Your task to perform on an android device: Open sound settings Image 0: 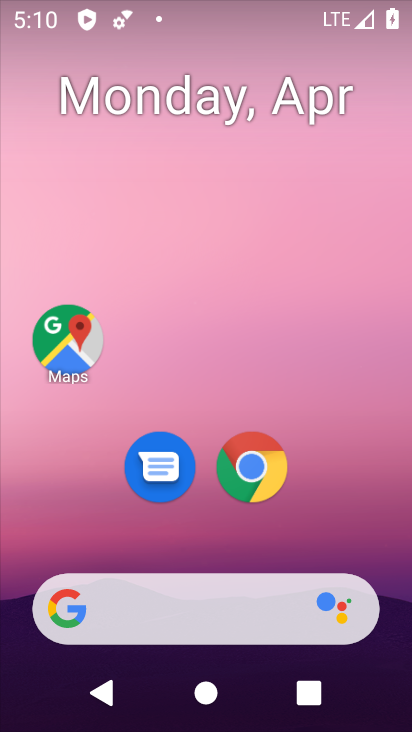
Step 0: drag from (352, 577) to (344, 2)
Your task to perform on an android device: Open sound settings Image 1: 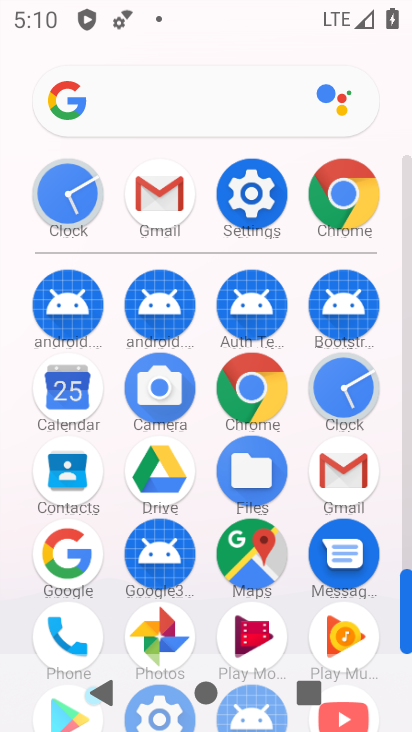
Step 1: drag from (290, 625) to (290, 147)
Your task to perform on an android device: Open sound settings Image 2: 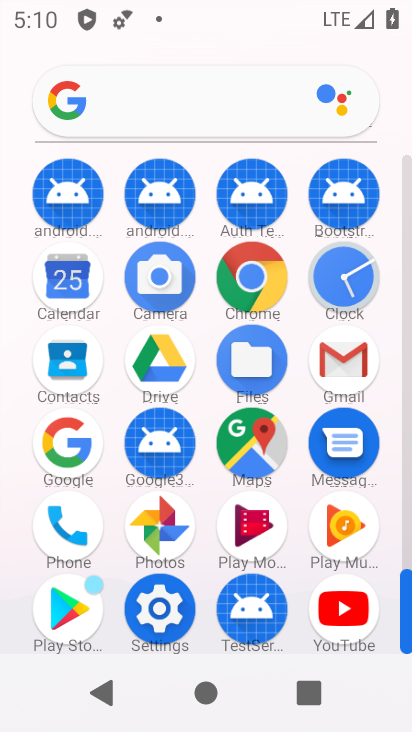
Step 2: click (163, 604)
Your task to perform on an android device: Open sound settings Image 3: 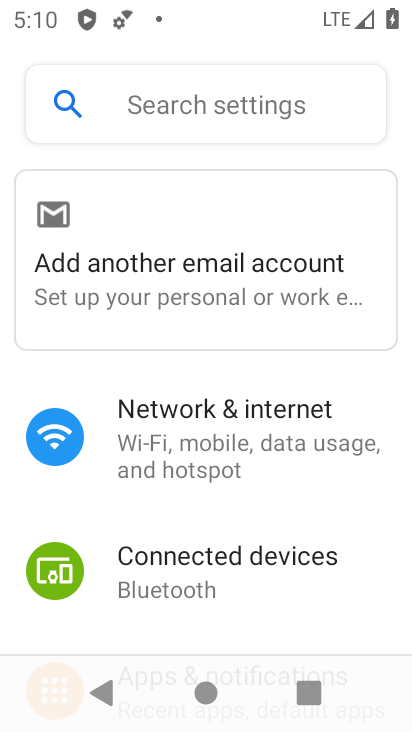
Step 3: drag from (300, 621) to (285, 51)
Your task to perform on an android device: Open sound settings Image 4: 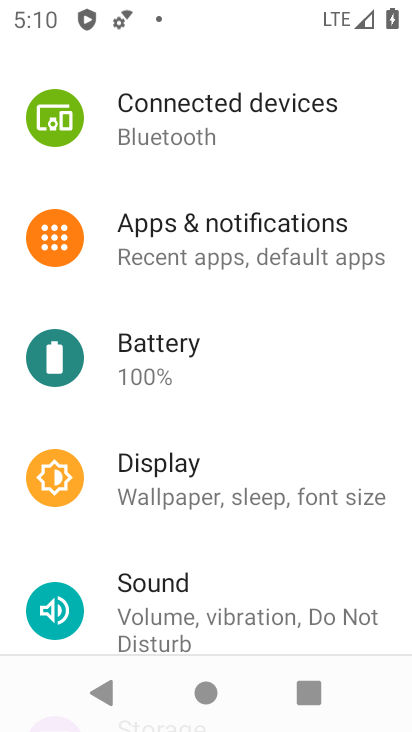
Step 4: drag from (341, 625) to (368, 266)
Your task to perform on an android device: Open sound settings Image 5: 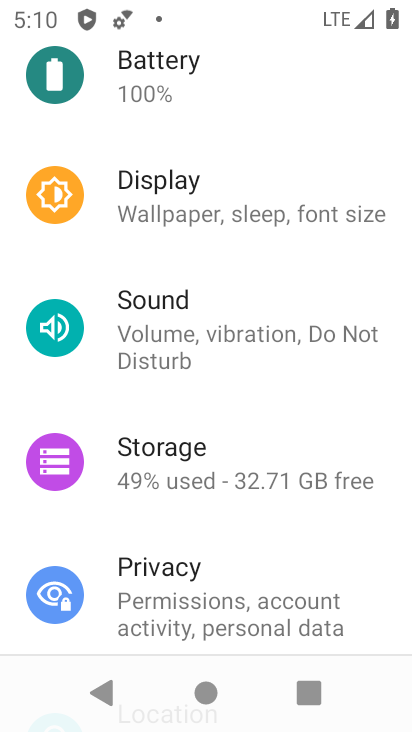
Step 5: click (267, 312)
Your task to perform on an android device: Open sound settings Image 6: 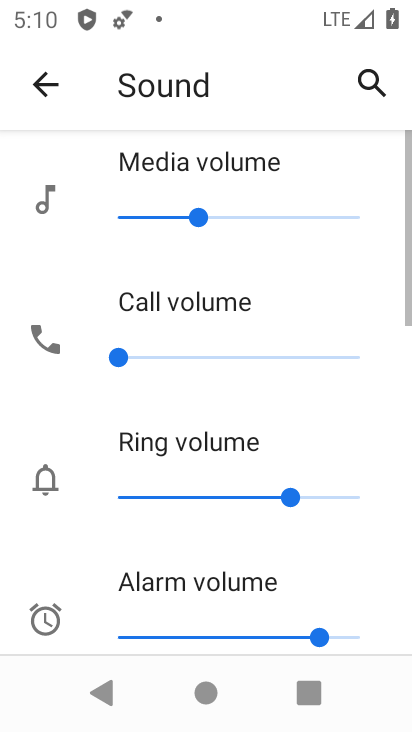
Step 6: task complete